Your task to perform on an android device: remove spam from my inbox in the gmail app Image 0: 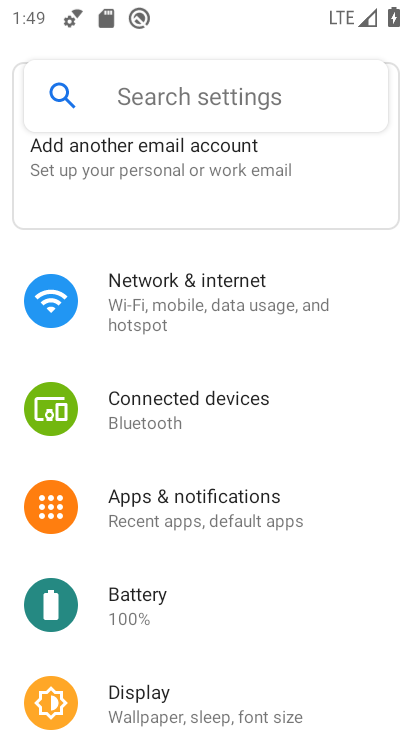
Step 0: press home button
Your task to perform on an android device: remove spam from my inbox in the gmail app Image 1: 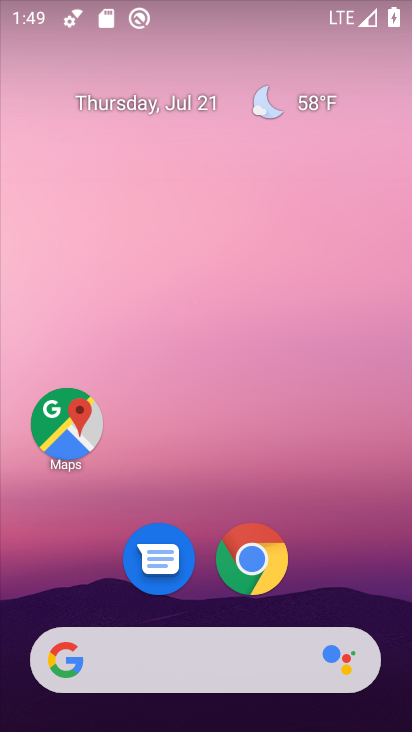
Step 1: drag from (346, 580) to (347, 91)
Your task to perform on an android device: remove spam from my inbox in the gmail app Image 2: 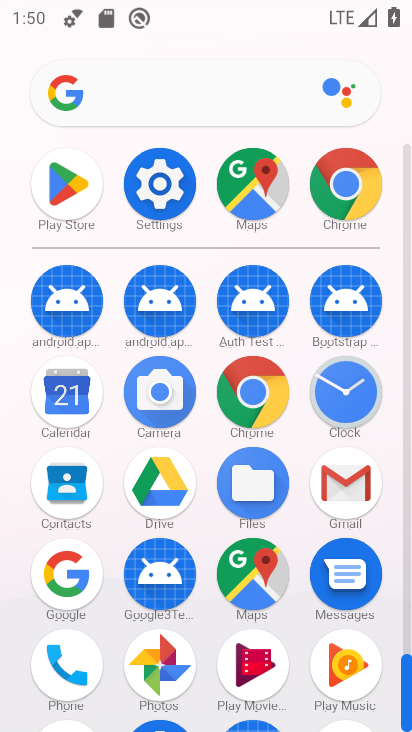
Step 2: click (354, 482)
Your task to perform on an android device: remove spam from my inbox in the gmail app Image 3: 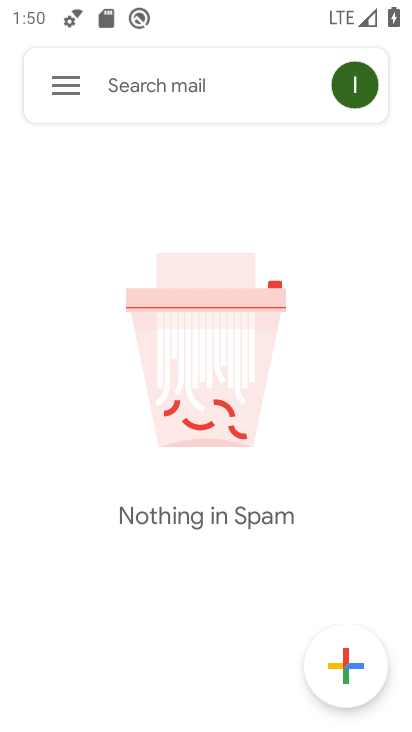
Step 3: task complete